Your task to perform on an android device: What's the weather today? Image 0: 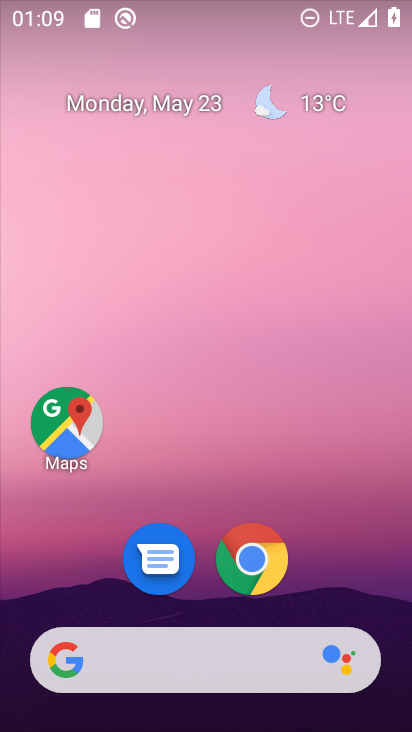
Step 0: click (317, 111)
Your task to perform on an android device: What's the weather today? Image 1: 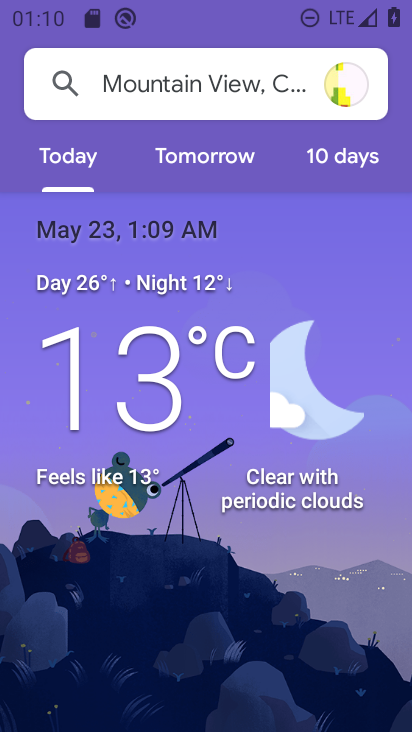
Step 1: task complete